Your task to perform on an android device: add a label to a message in the gmail app Image 0: 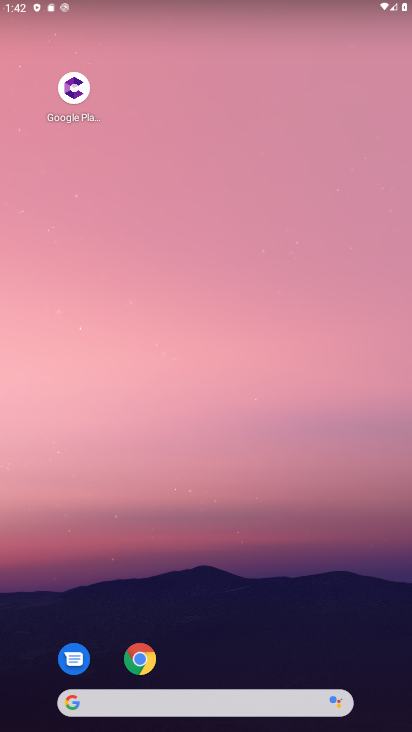
Step 0: press home button
Your task to perform on an android device: add a label to a message in the gmail app Image 1: 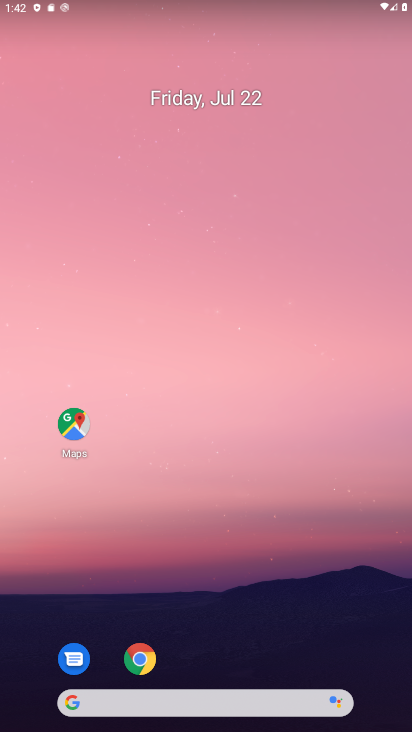
Step 1: drag from (246, 616) to (195, 269)
Your task to perform on an android device: add a label to a message in the gmail app Image 2: 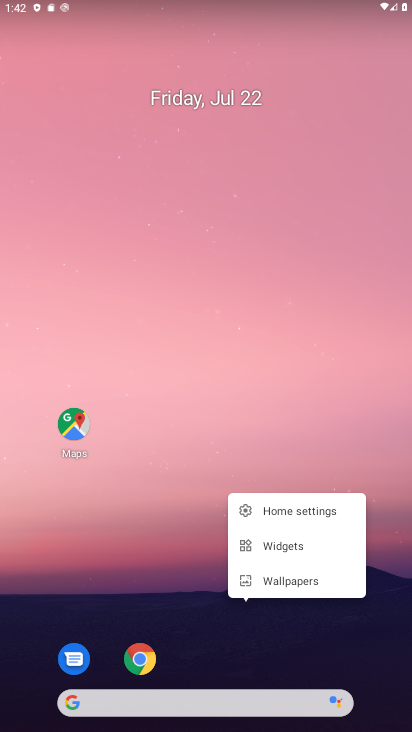
Step 2: click (195, 269)
Your task to perform on an android device: add a label to a message in the gmail app Image 3: 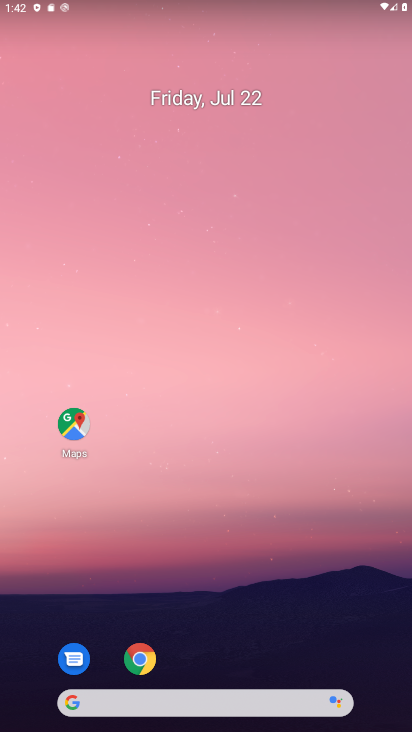
Step 3: drag from (354, 562) to (259, 167)
Your task to perform on an android device: add a label to a message in the gmail app Image 4: 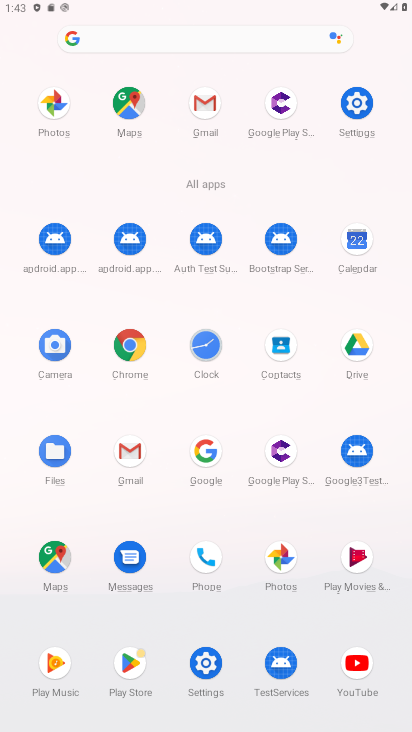
Step 4: click (134, 457)
Your task to perform on an android device: add a label to a message in the gmail app Image 5: 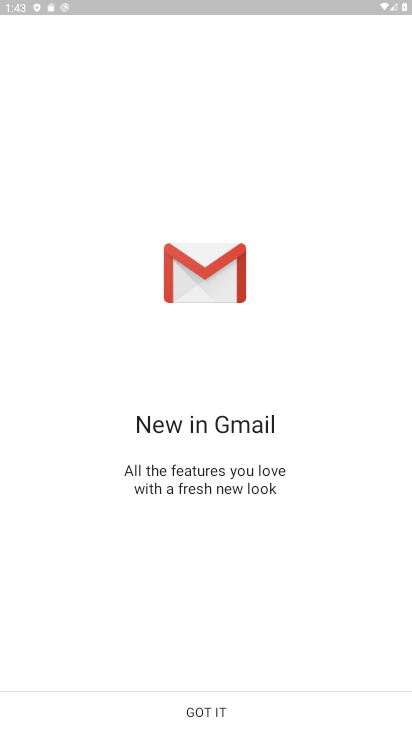
Step 5: click (353, 716)
Your task to perform on an android device: add a label to a message in the gmail app Image 6: 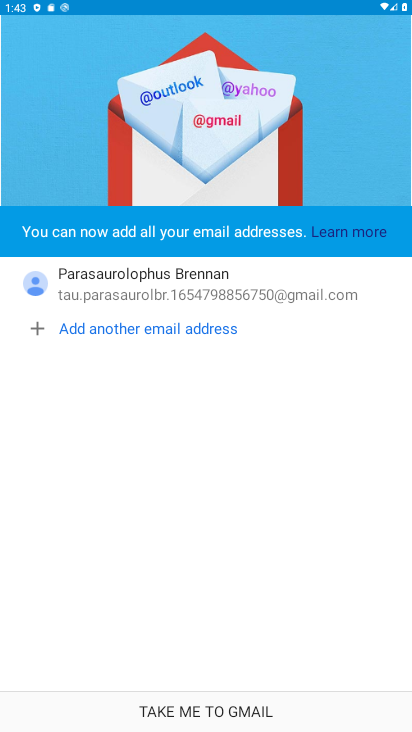
Step 6: click (315, 718)
Your task to perform on an android device: add a label to a message in the gmail app Image 7: 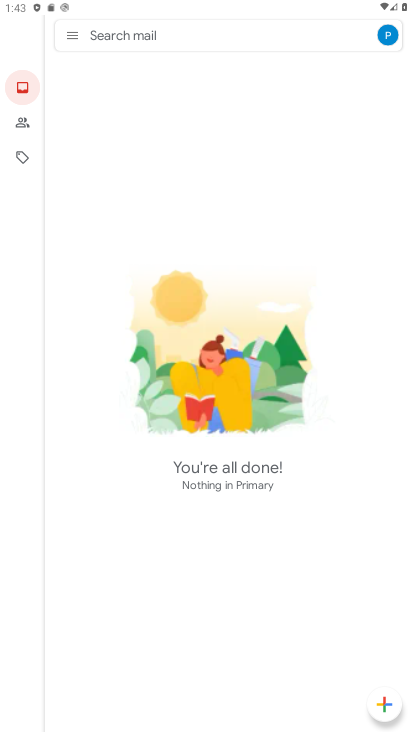
Step 7: click (75, 26)
Your task to perform on an android device: add a label to a message in the gmail app Image 8: 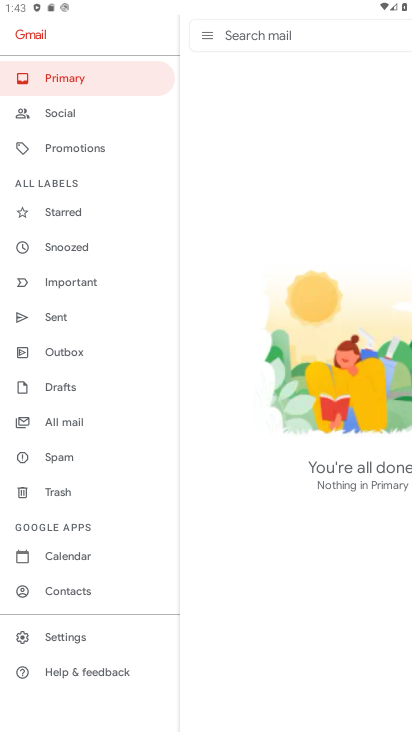
Step 8: click (43, 417)
Your task to perform on an android device: add a label to a message in the gmail app Image 9: 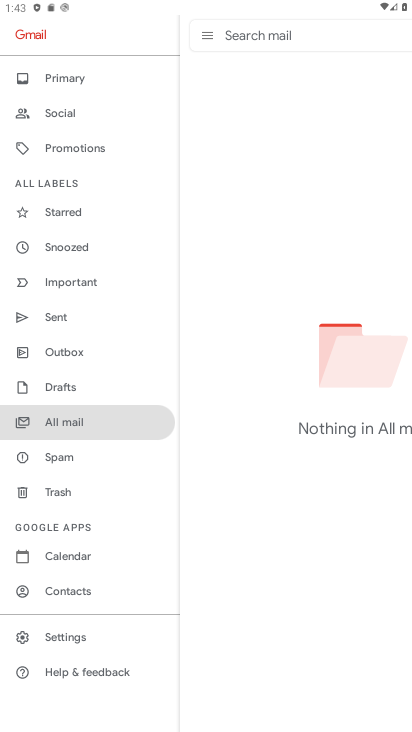
Step 9: task complete